Your task to perform on an android device: Open display settings Image 0: 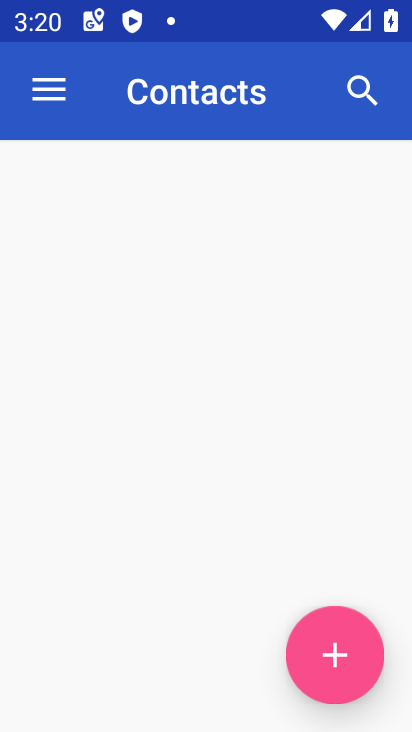
Step 0: drag from (359, 551) to (325, 21)
Your task to perform on an android device: Open display settings Image 1: 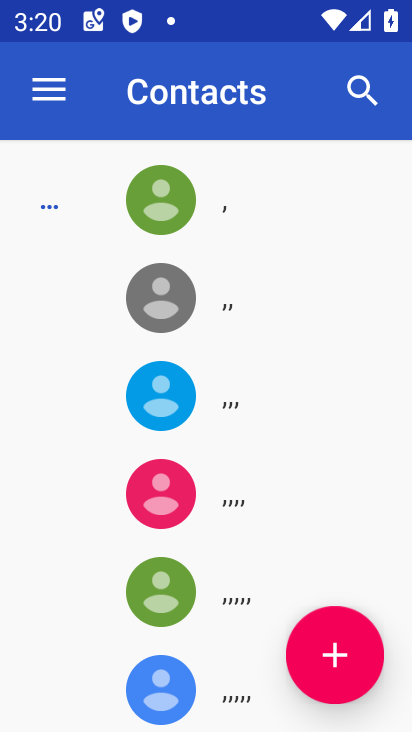
Step 1: press home button
Your task to perform on an android device: Open display settings Image 2: 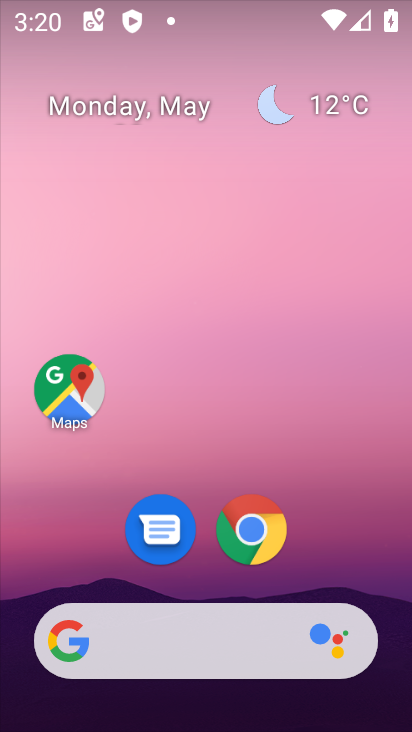
Step 2: drag from (340, 506) to (310, 18)
Your task to perform on an android device: Open display settings Image 3: 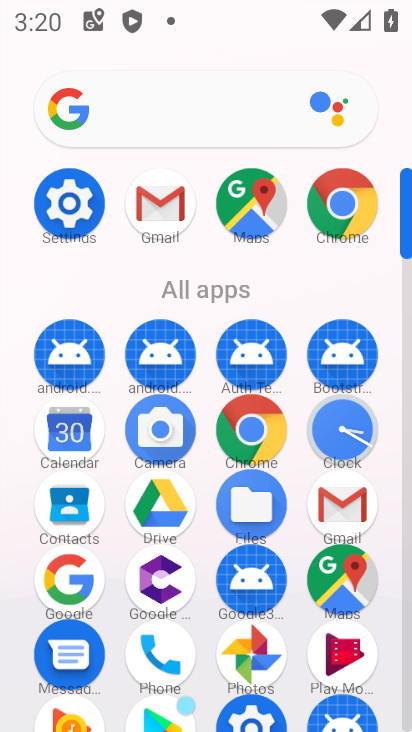
Step 3: click (58, 200)
Your task to perform on an android device: Open display settings Image 4: 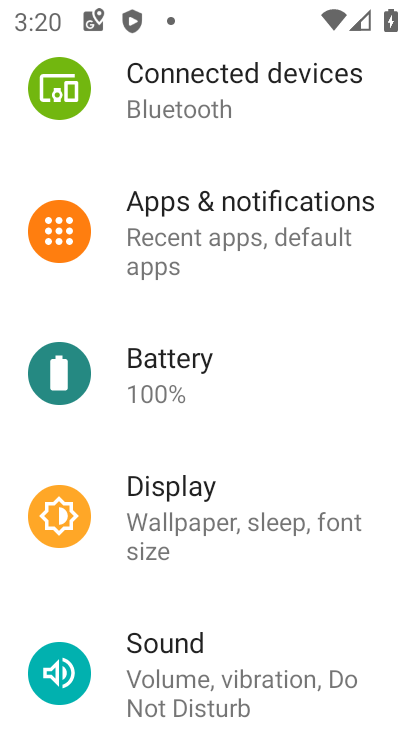
Step 4: click (216, 531)
Your task to perform on an android device: Open display settings Image 5: 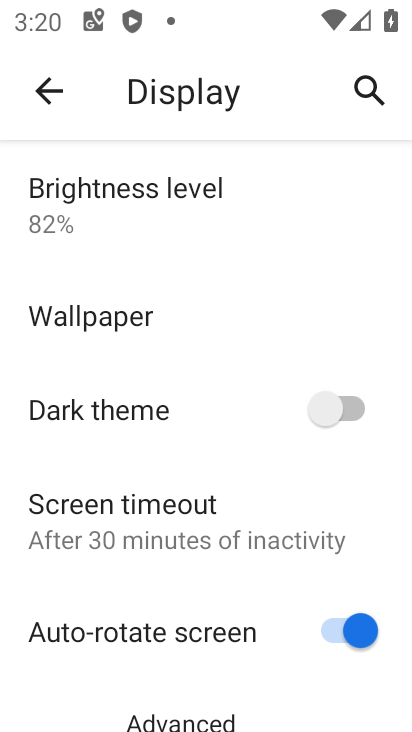
Step 5: task complete